Your task to perform on an android device: turn on priority inbox in the gmail app Image 0: 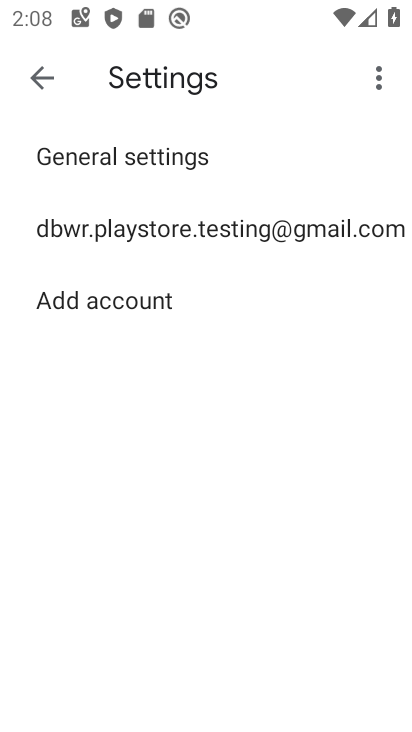
Step 0: press home button
Your task to perform on an android device: turn on priority inbox in the gmail app Image 1: 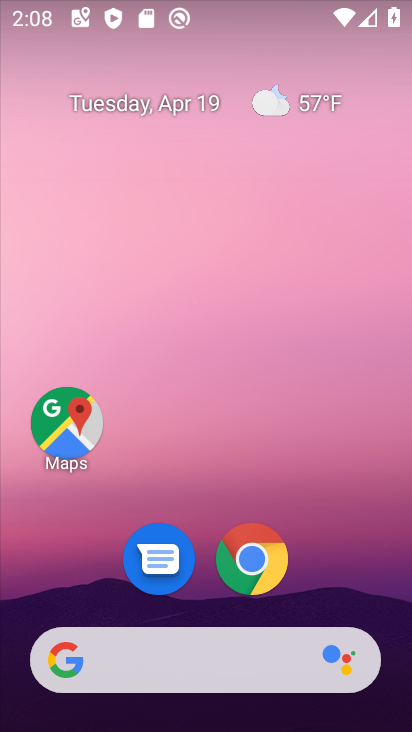
Step 1: drag from (210, 603) to (245, 125)
Your task to perform on an android device: turn on priority inbox in the gmail app Image 2: 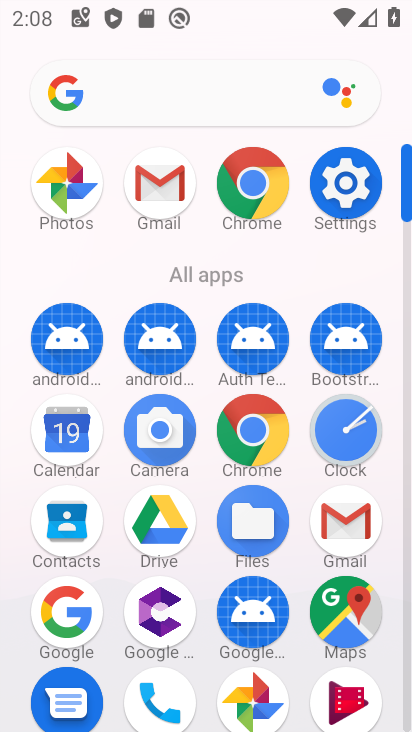
Step 2: click (343, 511)
Your task to perform on an android device: turn on priority inbox in the gmail app Image 3: 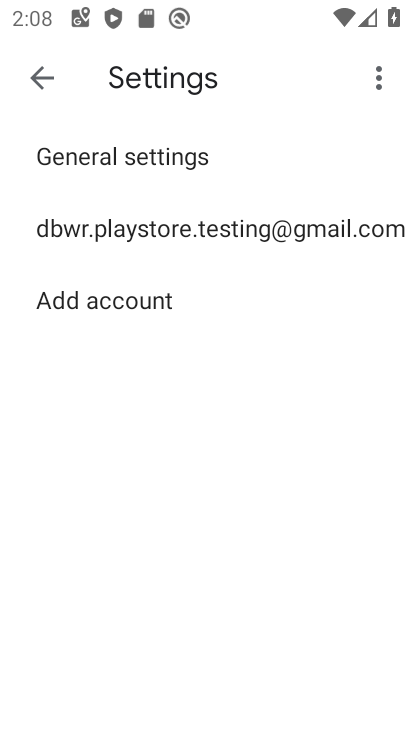
Step 3: click (277, 220)
Your task to perform on an android device: turn on priority inbox in the gmail app Image 4: 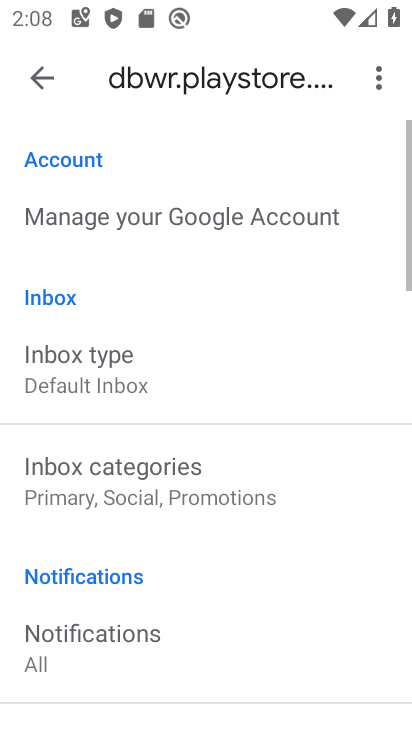
Step 4: click (162, 361)
Your task to perform on an android device: turn on priority inbox in the gmail app Image 5: 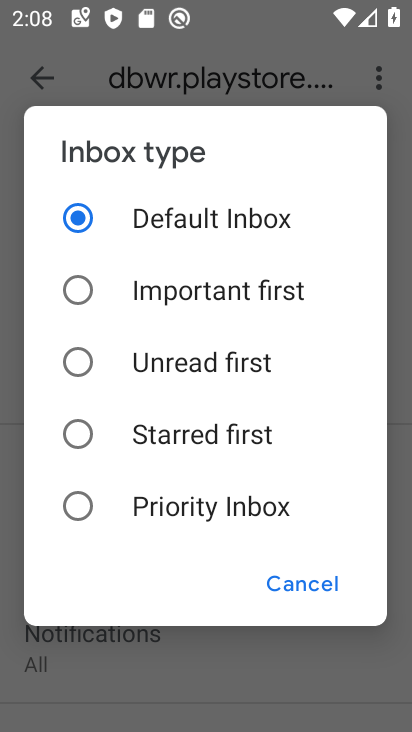
Step 5: click (80, 502)
Your task to perform on an android device: turn on priority inbox in the gmail app Image 6: 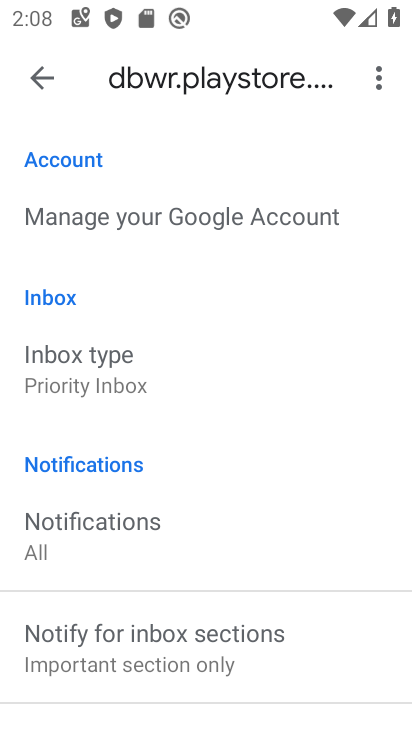
Step 6: task complete